Your task to perform on an android device: check storage Image 0: 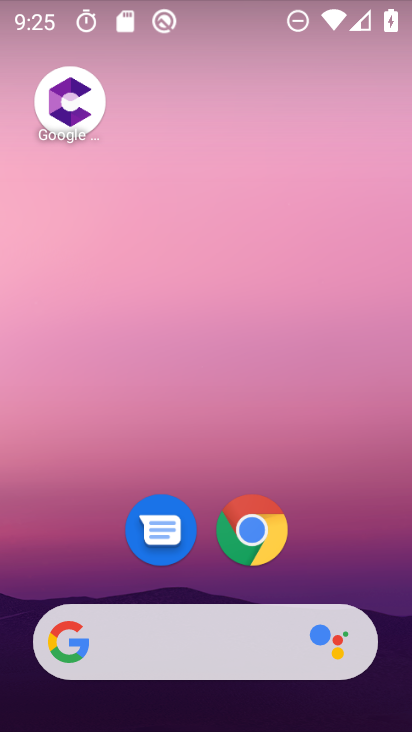
Step 0: drag from (369, 592) to (305, 18)
Your task to perform on an android device: check storage Image 1: 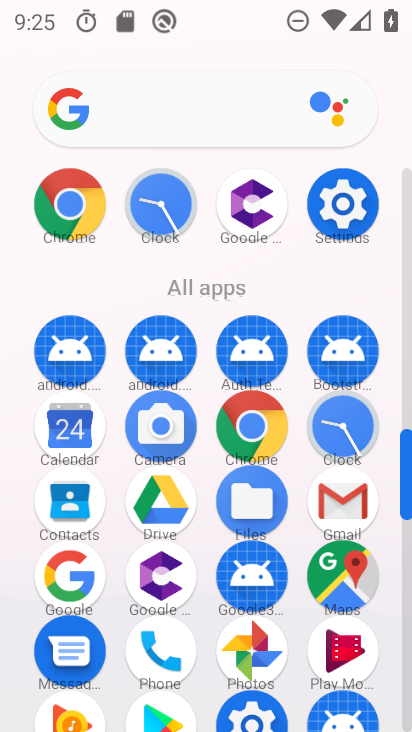
Step 1: click (339, 201)
Your task to perform on an android device: check storage Image 2: 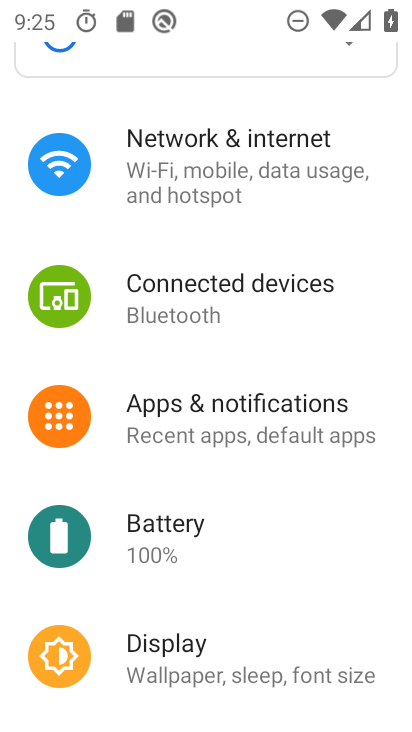
Step 2: drag from (375, 572) to (326, 41)
Your task to perform on an android device: check storage Image 3: 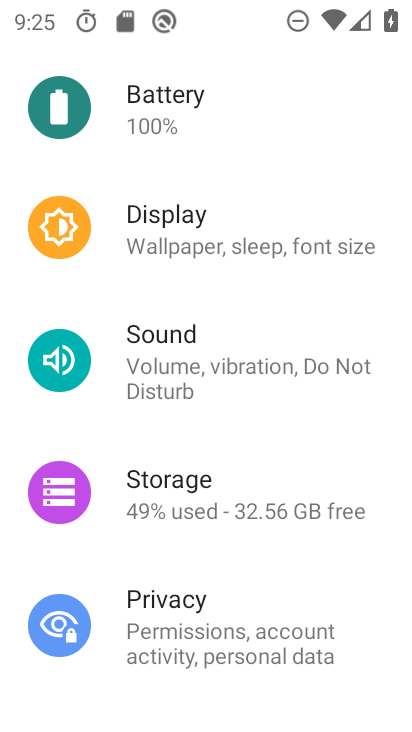
Step 3: click (177, 507)
Your task to perform on an android device: check storage Image 4: 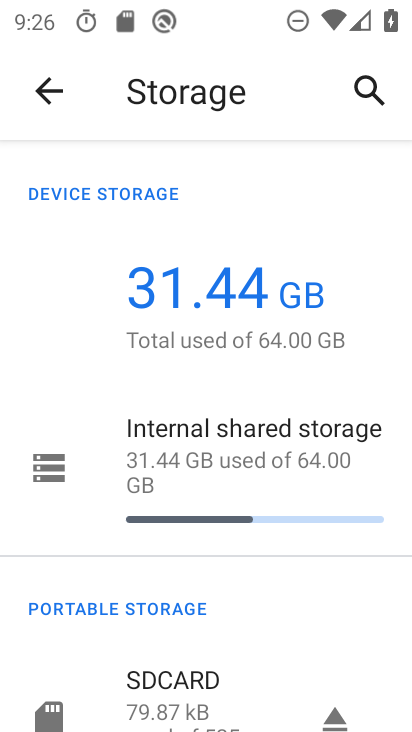
Step 4: click (242, 466)
Your task to perform on an android device: check storage Image 5: 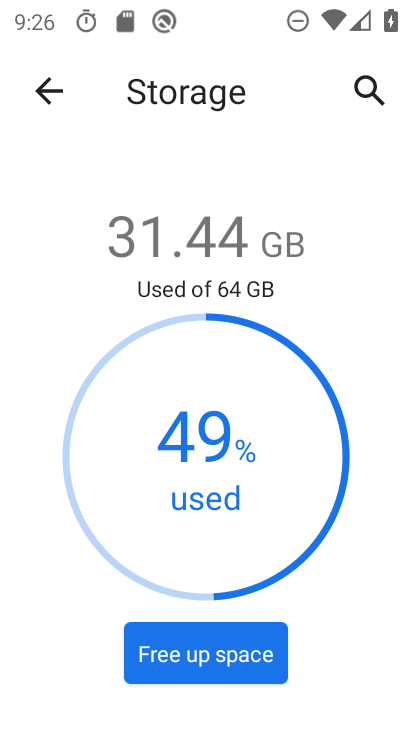
Step 5: task complete